Your task to perform on an android device: set the stopwatch Image 0: 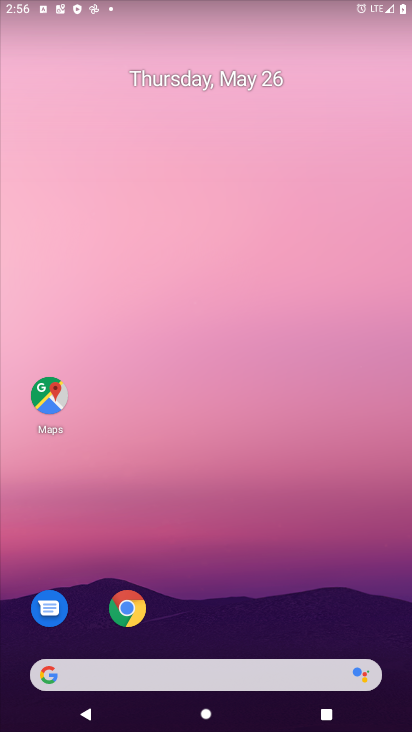
Step 0: drag from (385, 619) to (321, 144)
Your task to perform on an android device: set the stopwatch Image 1: 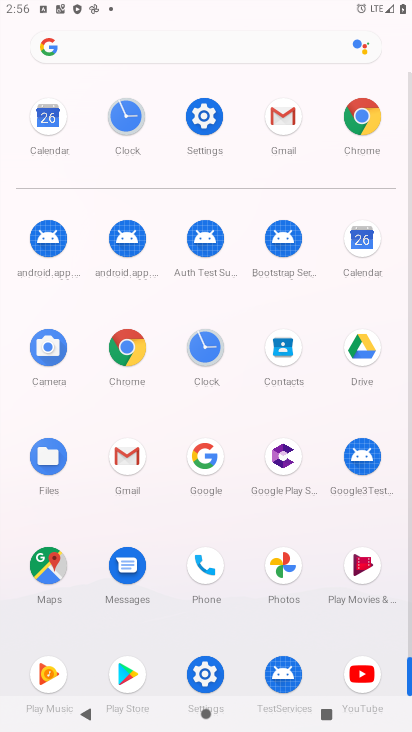
Step 1: click (207, 346)
Your task to perform on an android device: set the stopwatch Image 2: 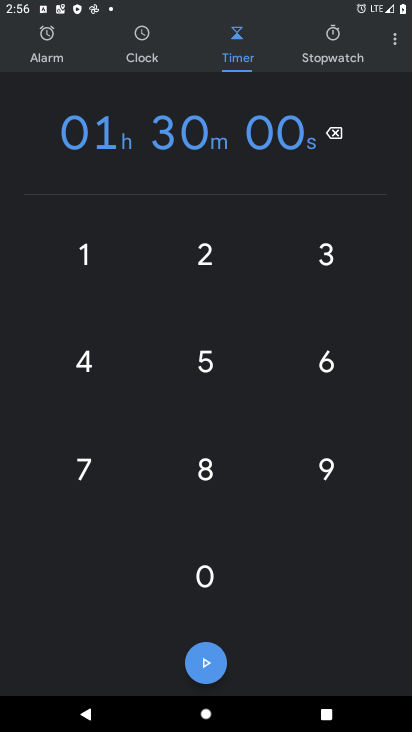
Step 2: click (332, 34)
Your task to perform on an android device: set the stopwatch Image 3: 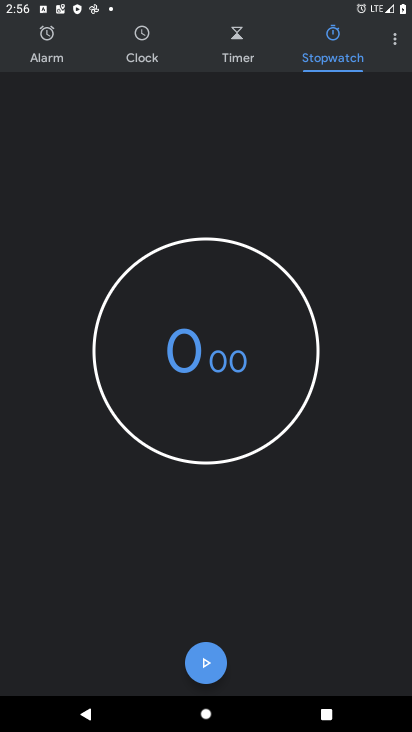
Step 3: task complete